Your task to perform on an android device: Add logitech g910 to the cart on walmart.com Image 0: 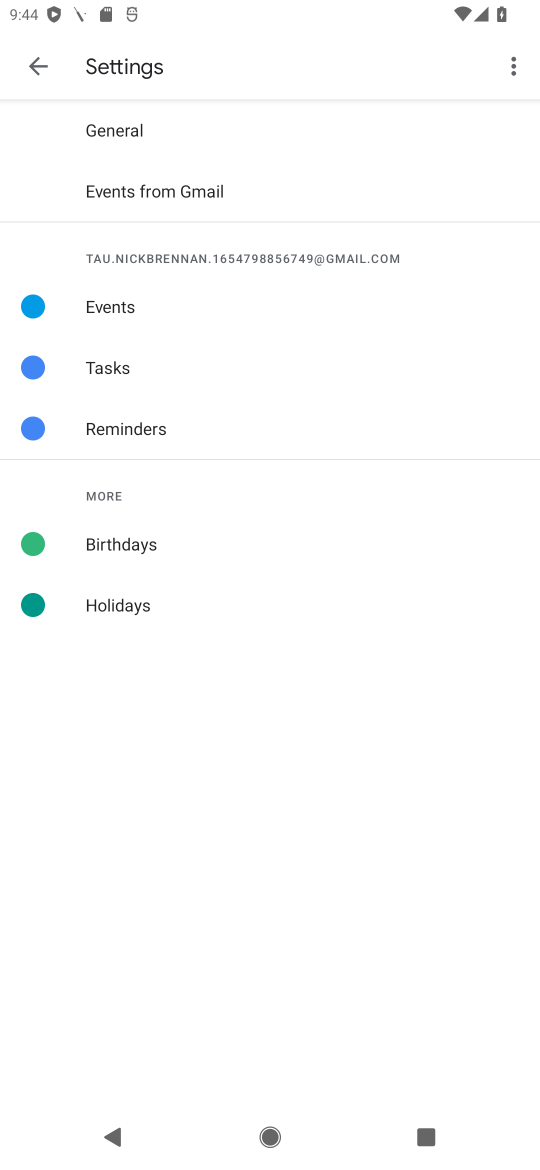
Step 0: press home button
Your task to perform on an android device: Add logitech g910 to the cart on walmart.com Image 1: 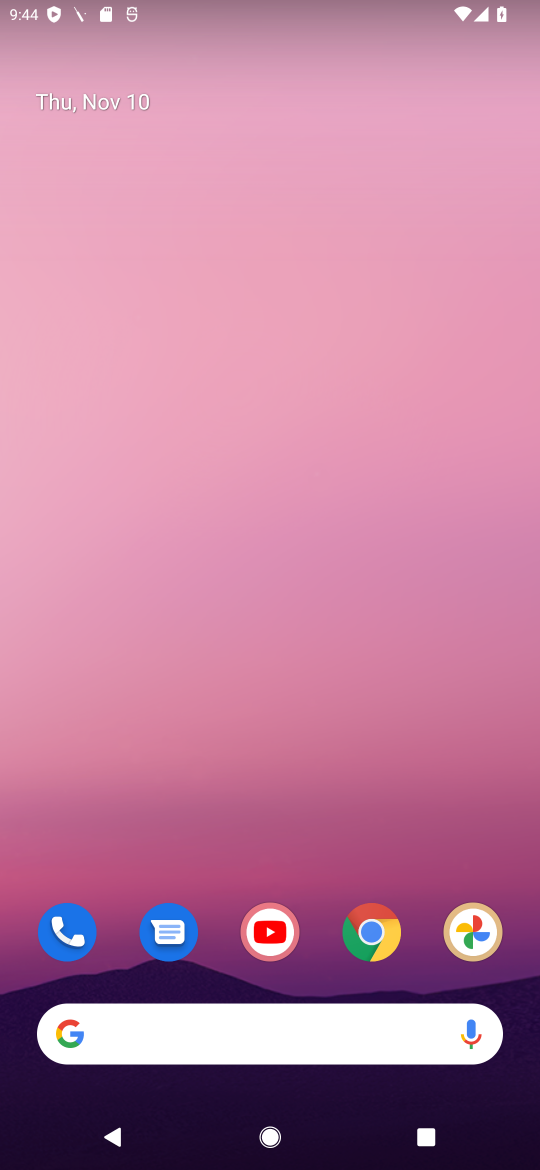
Step 1: click (382, 930)
Your task to perform on an android device: Add logitech g910 to the cart on walmart.com Image 2: 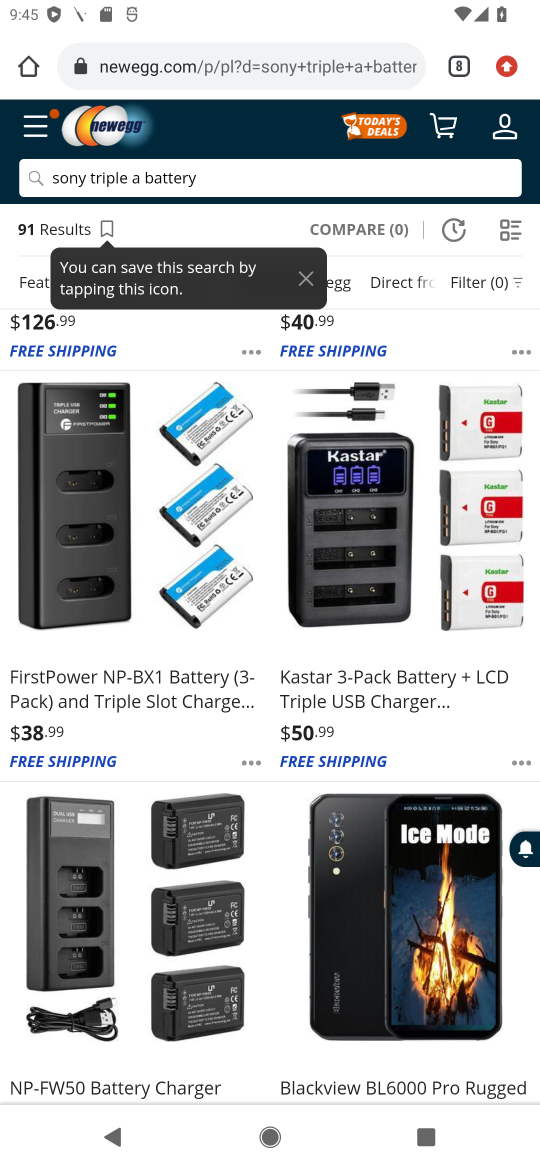
Step 2: click (446, 77)
Your task to perform on an android device: Add logitech g910 to the cart on walmart.com Image 3: 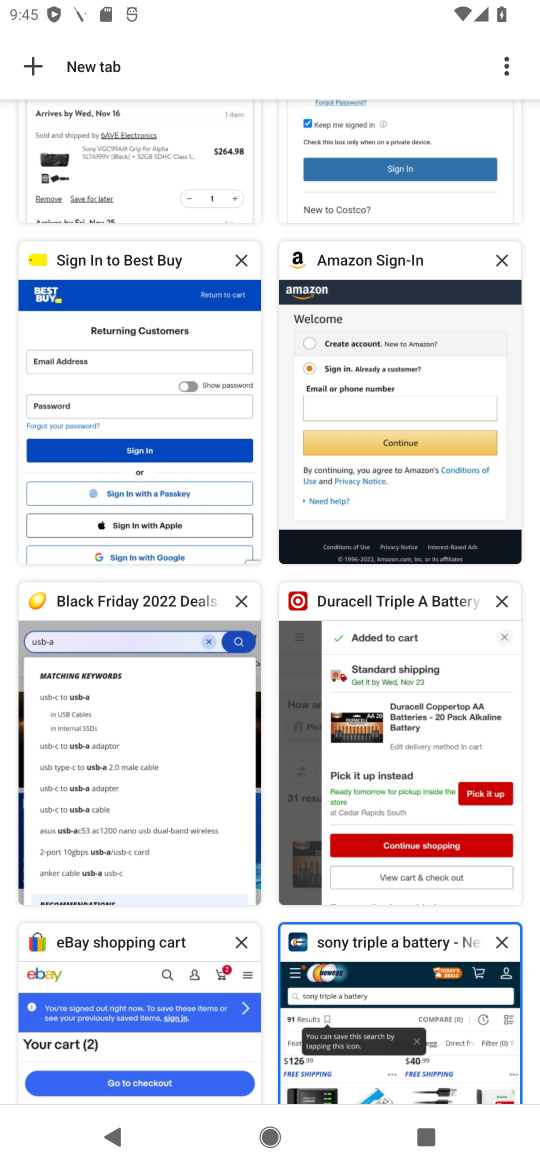
Step 3: click (162, 155)
Your task to perform on an android device: Add logitech g910 to the cart on walmart.com Image 4: 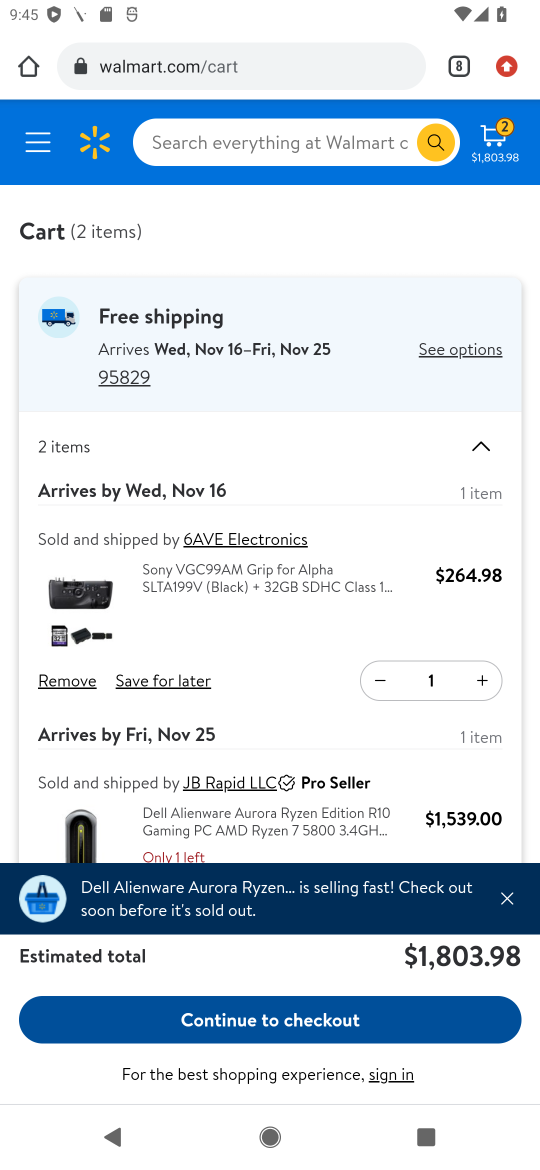
Step 4: click (267, 128)
Your task to perform on an android device: Add logitech g910 to the cart on walmart.com Image 5: 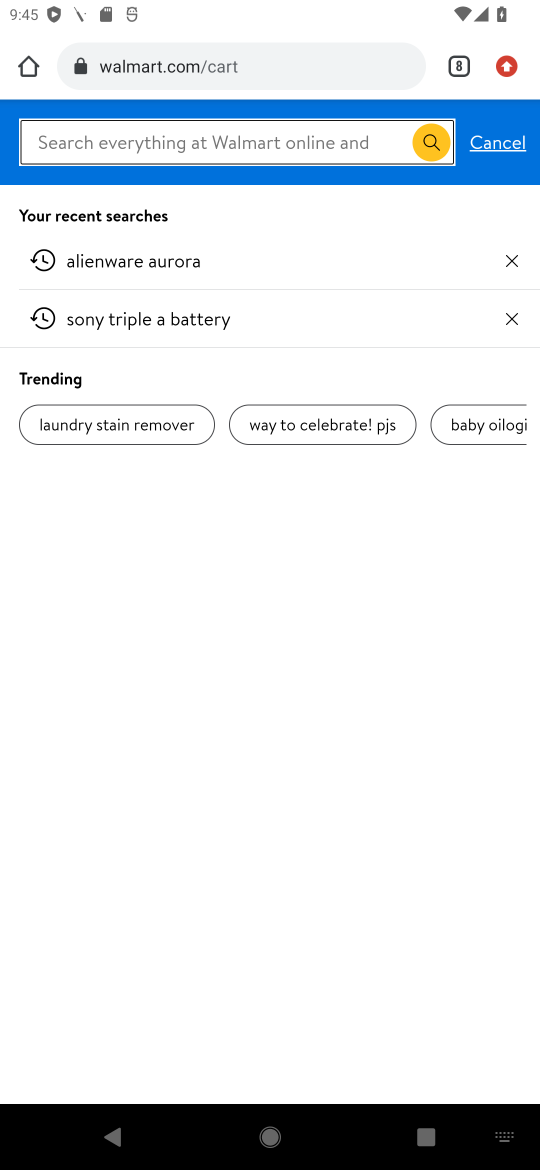
Step 5: type "logitech g910 "
Your task to perform on an android device: Add logitech g910 to the cart on walmart.com Image 6: 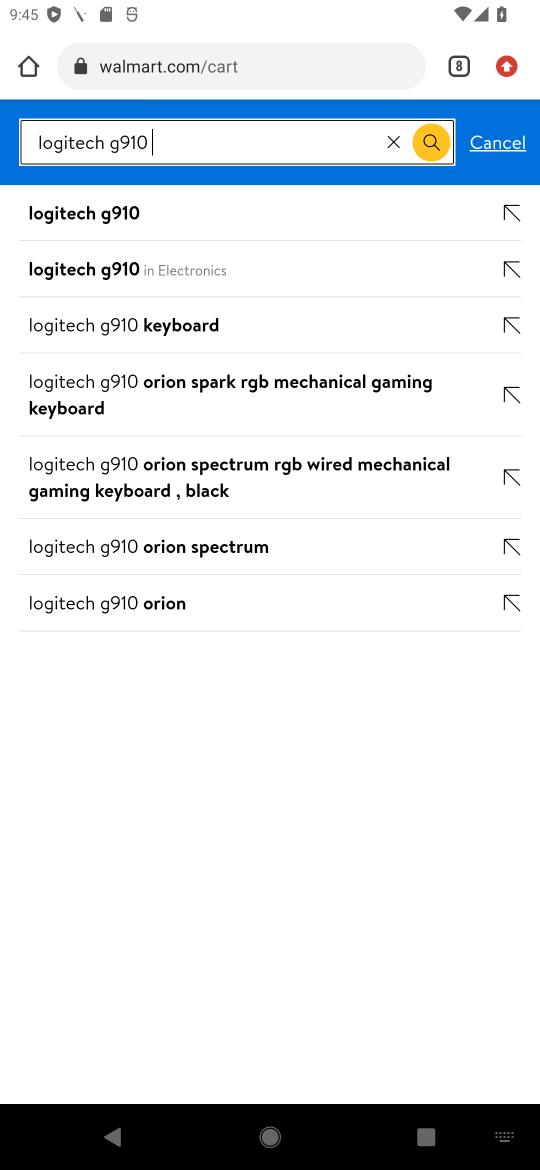
Step 6: click (79, 272)
Your task to perform on an android device: Add logitech g910 to the cart on walmart.com Image 7: 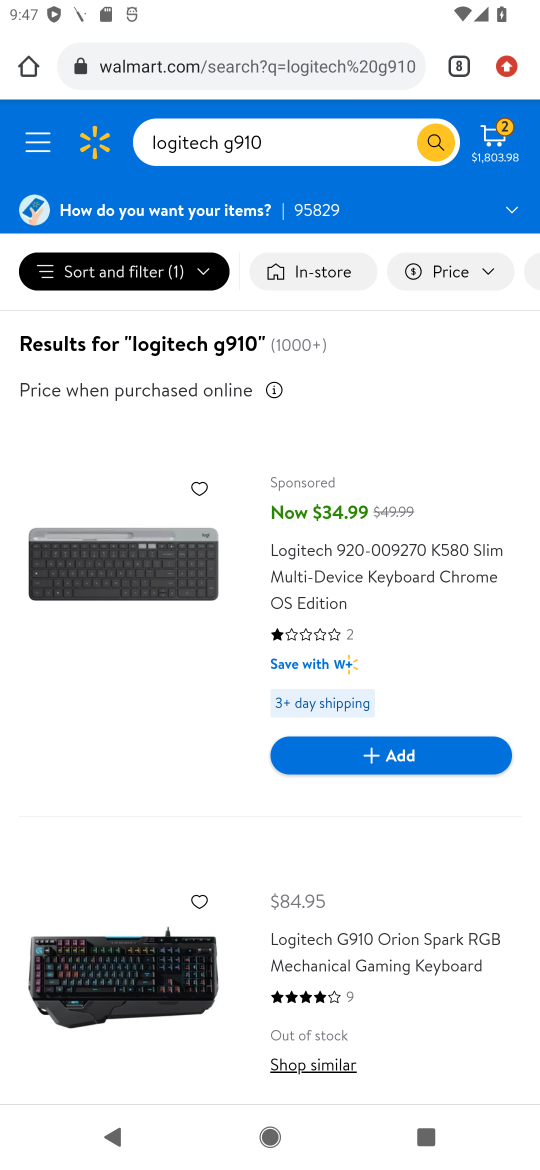
Step 7: click (423, 750)
Your task to perform on an android device: Add logitech g910 to the cart on walmart.com Image 8: 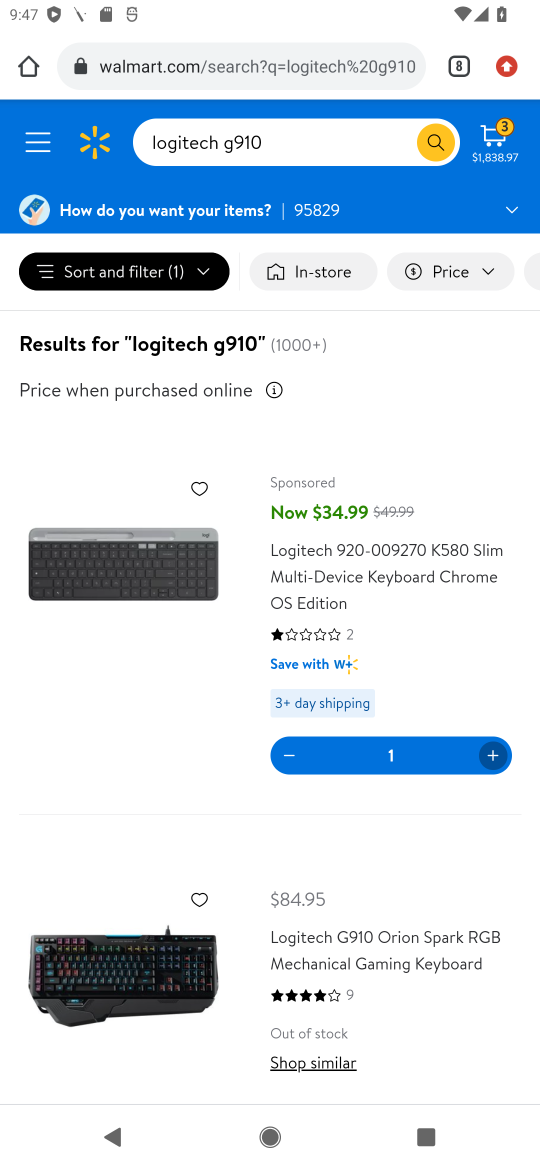
Step 8: task complete